Your task to perform on an android device: Open Maps and search for coffee Image 0: 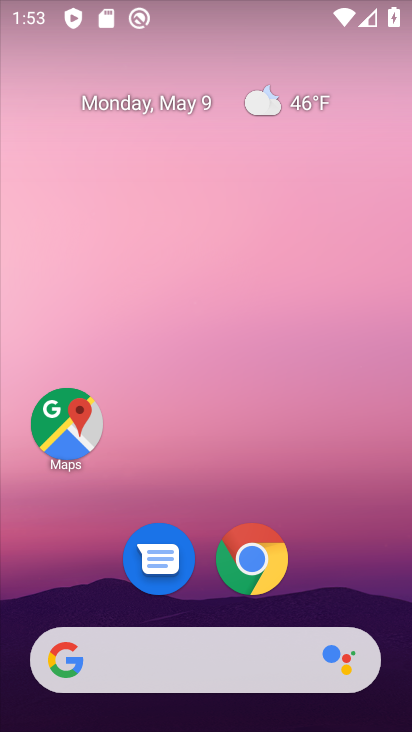
Step 0: press home button
Your task to perform on an android device: Open Maps and search for coffee Image 1: 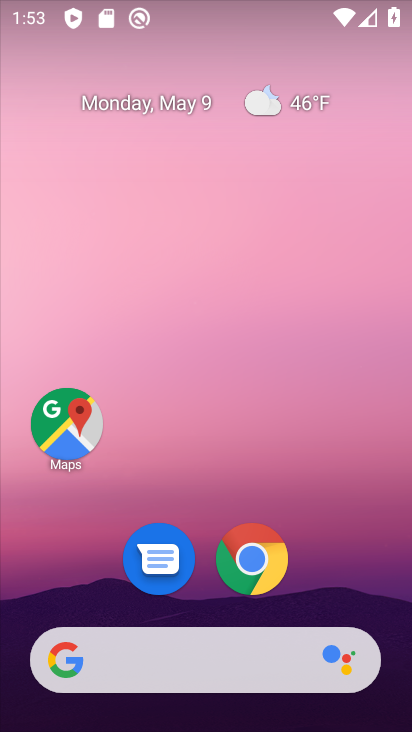
Step 1: drag from (358, 543) to (338, 106)
Your task to perform on an android device: Open Maps and search for coffee Image 2: 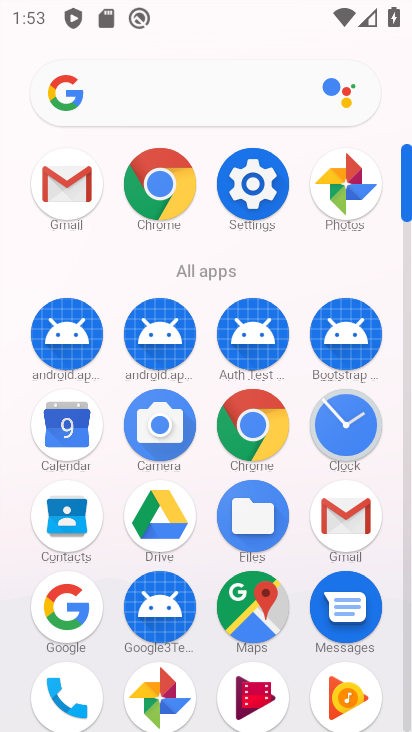
Step 2: click (233, 606)
Your task to perform on an android device: Open Maps and search for coffee Image 3: 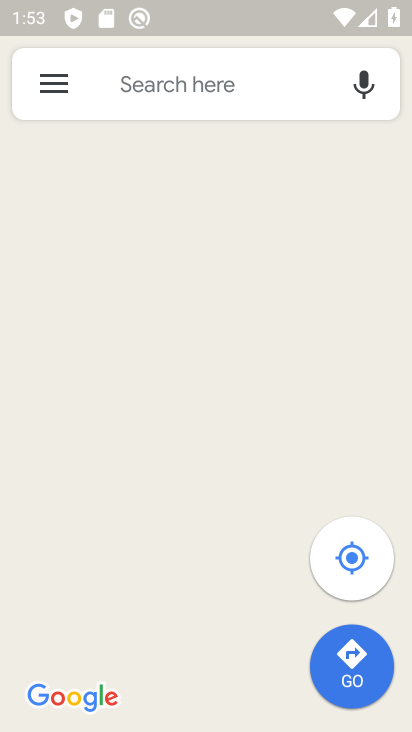
Step 3: click (205, 64)
Your task to perform on an android device: Open Maps and search for coffee Image 4: 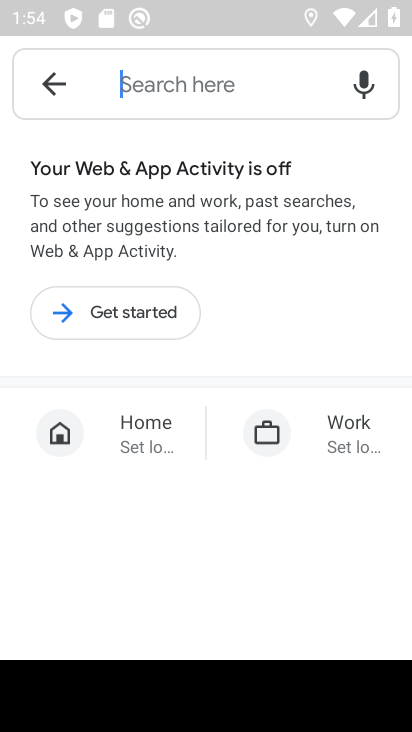
Step 4: type "coffee"
Your task to perform on an android device: Open Maps and search for coffee Image 5: 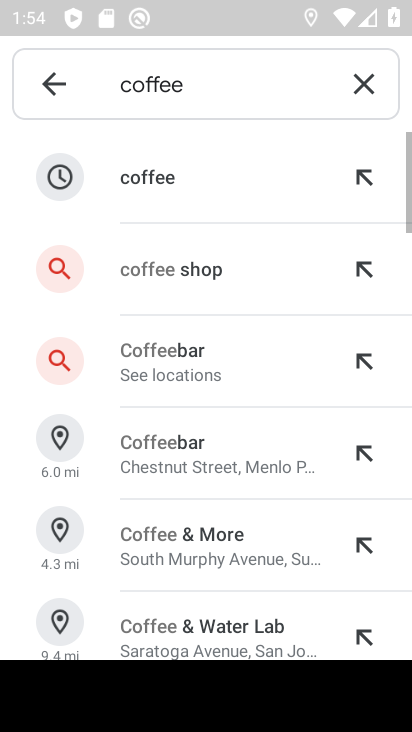
Step 5: click (113, 177)
Your task to perform on an android device: Open Maps and search for coffee Image 6: 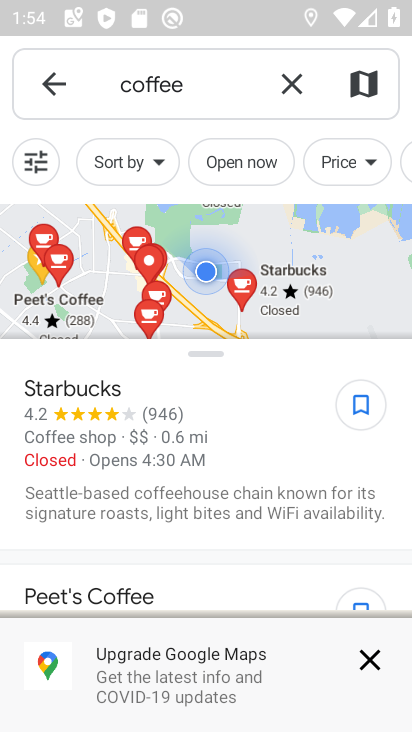
Step 6: task complete